Your task to perform on an android device: uninstall "Upside-Cash back on gas & food" Image 0: 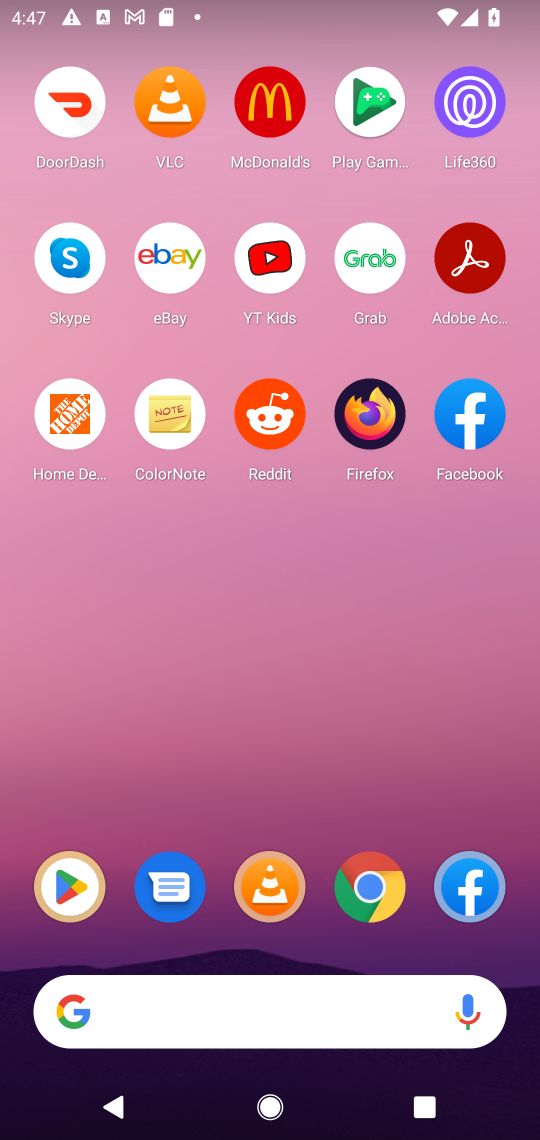
Step 0: click (61, 878)
Your task to perform on an android device: uninstall "Upside-Cash back on gas & food" Image 1: 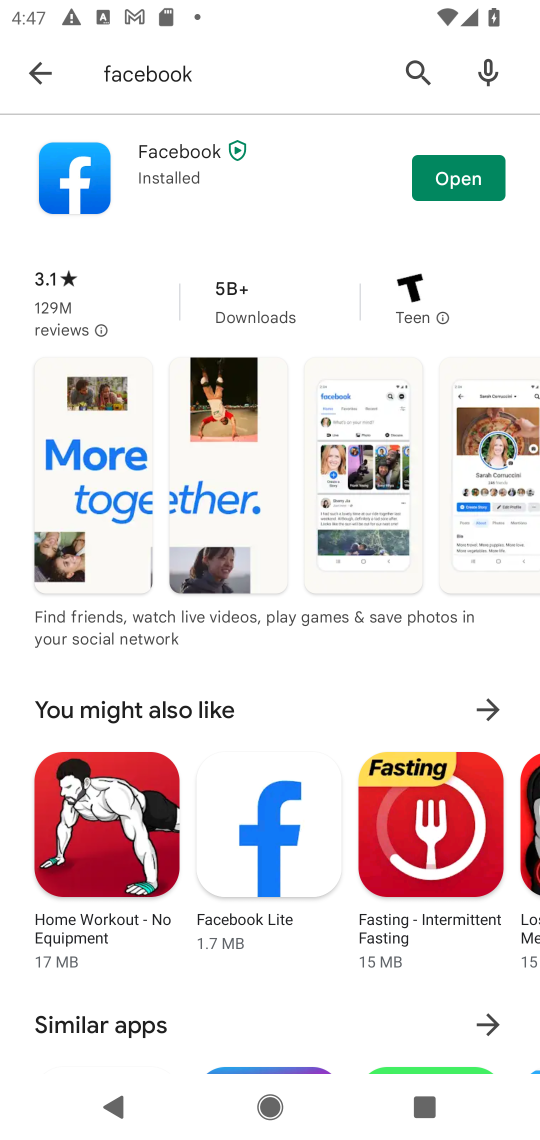
Step 1: click (218, 79)
Your task to perform on an android device: uninstall "Upside-Cash back on gas & food" Image 2: 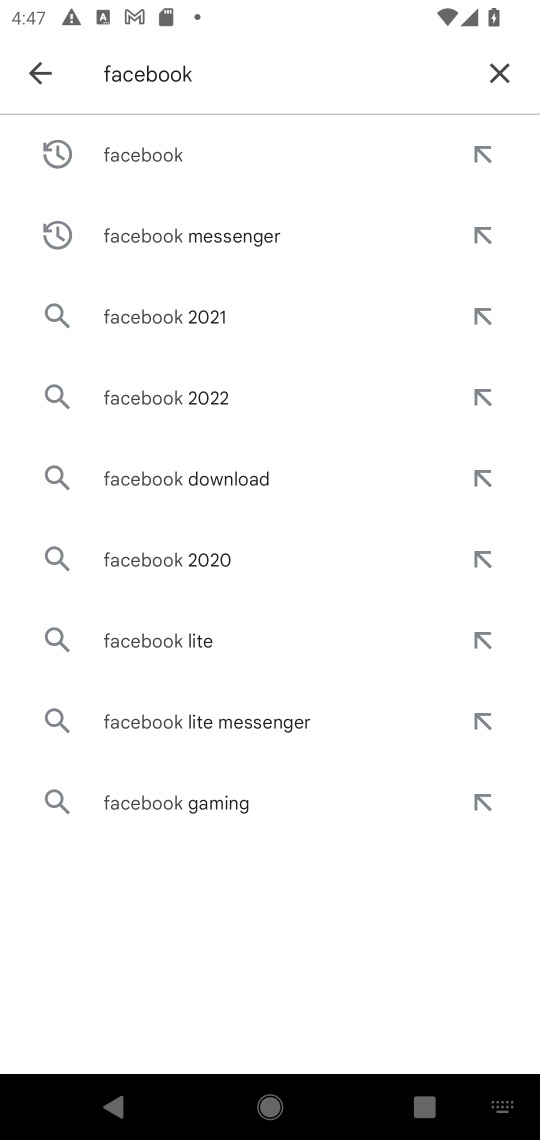
Step 2: click (493, 77)
Your task to perform on an android device: uninstall "Upside-Cash back on gas & food" Image 3: 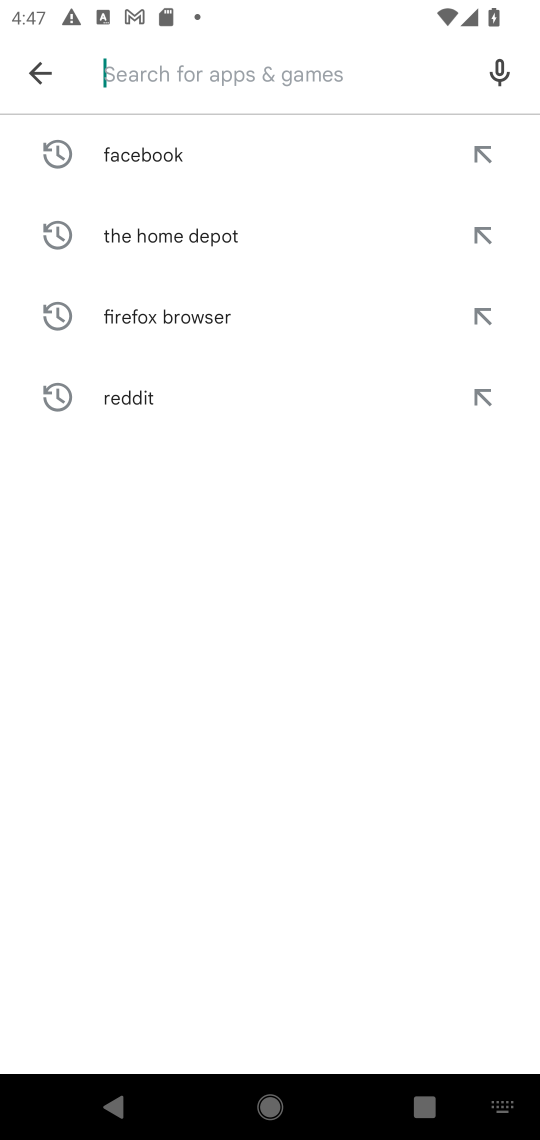
Step 3: type "Upside"
Your task to perform on an android device: uninstall "Upside-Cash back on gas & food" Image 4: 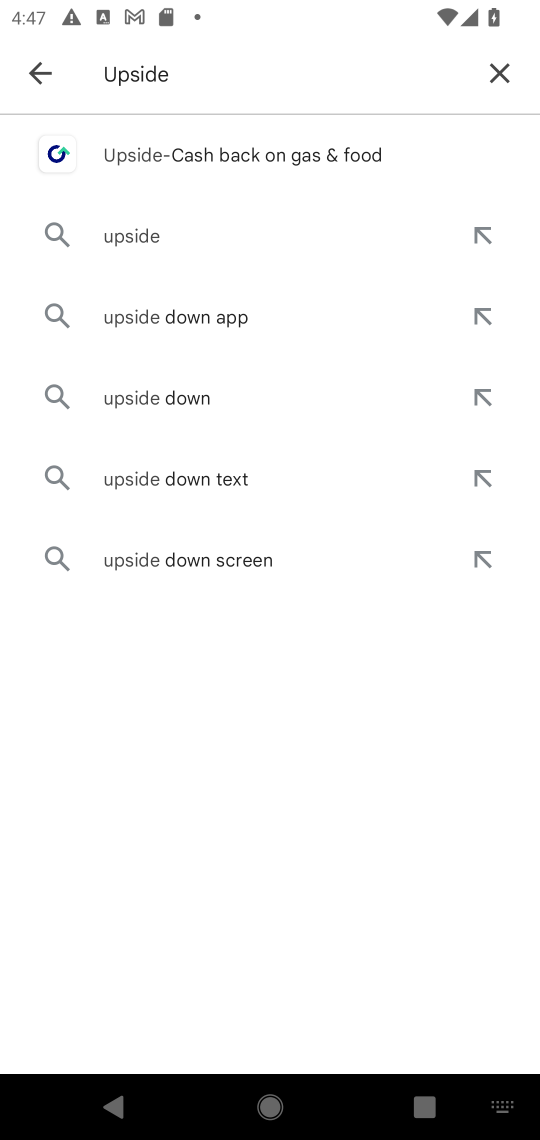
Step 4: click (260, 167)
Your task to perform on an android device: uninstall "Upside-Cash back on gas & food" Image 5: 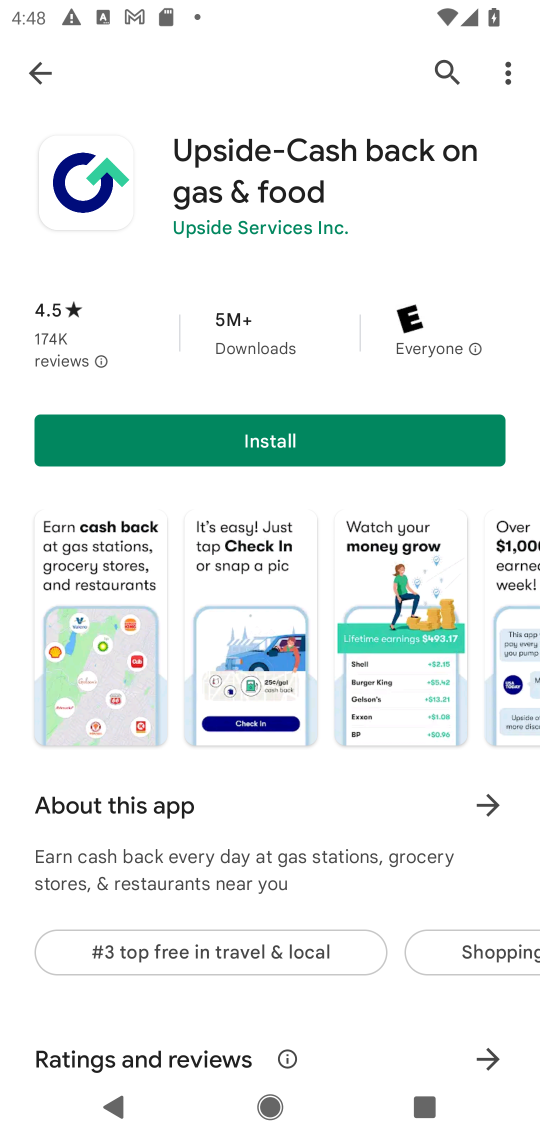
Step 5: task complete